Your task to perform on an android device: Open the stopwatch Image 0: 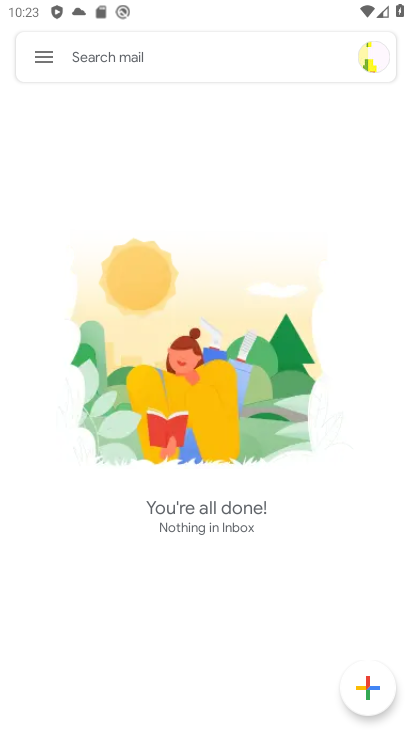
Step 0: press home button
Your task to perform on an android device: Open the stopwatch Image 1: 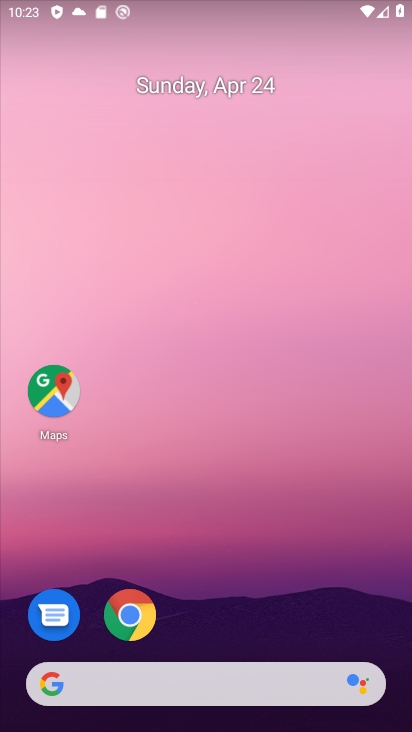
Step 1: drag from (214, 644) to (243, 79)
Your task to perform on an android device: Open the stopwatch Image 2: 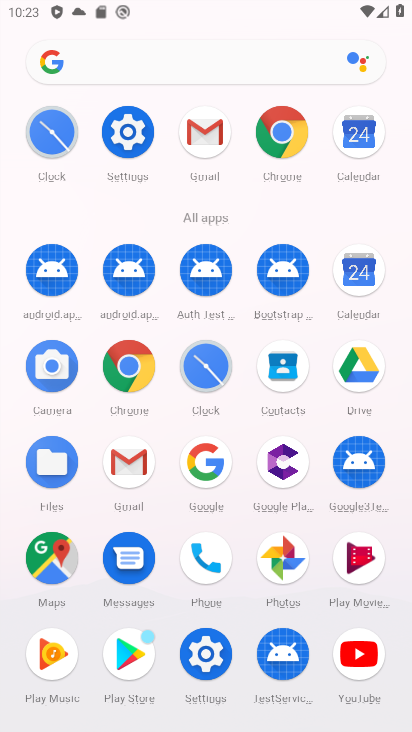
Step 2: click (201, 355)
Your task to perform on an android device: Open the stopwatch Image 3: 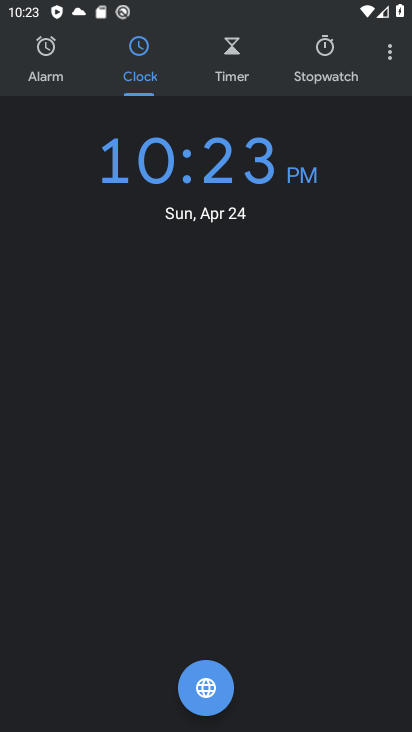
Step 3: click (322, 45)
Your task to perform on an android device: Open the stopwatch Image 4: 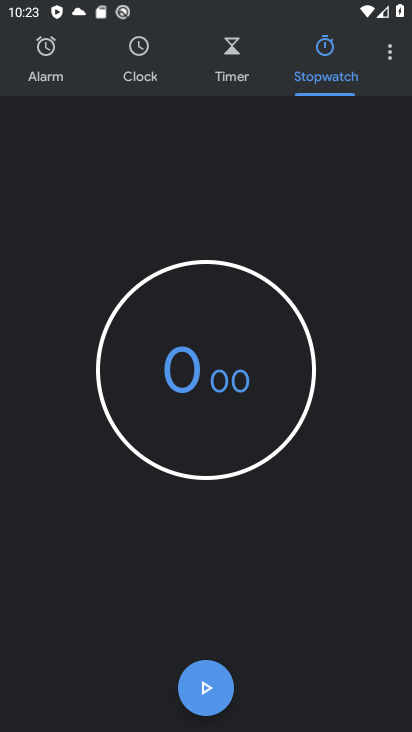
Step 4: click (200, 681)
Your task to perform on an android device: Open the stopwatch Image 5: 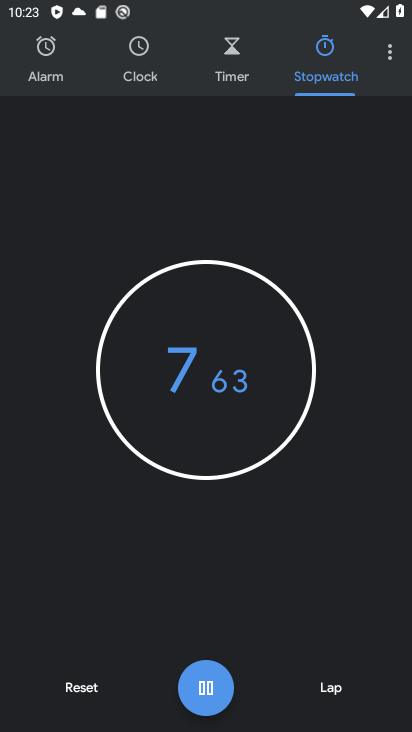
Step 5: click (83, 681)
Your task to perform on an android device: Open the stopwatch Image 6: 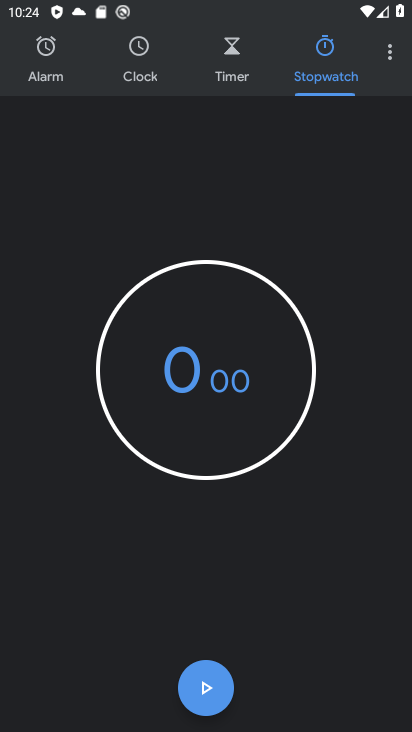
Step 6: task complete